Your task to perform on an android device: Go to Yahoo.com Image 0: 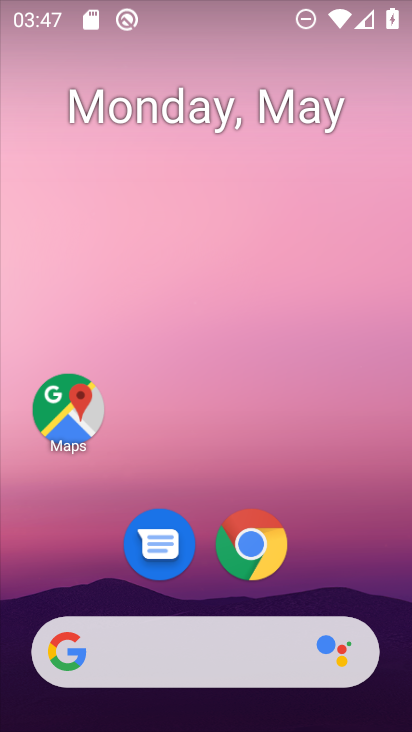
Step 0: drag from (372, 580) to (383, 235)
Your task to perform on an android device: Go to Yahoo.com Image 1: 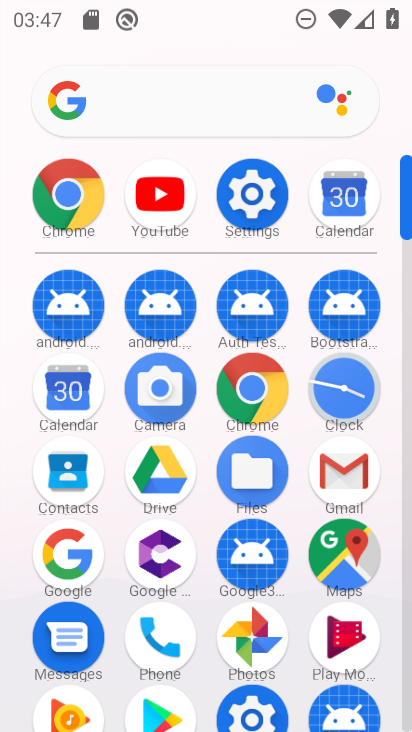
Step 1: click (261, 403)
Your task to perform on an android device: Go to Yahoo.com Image 2: 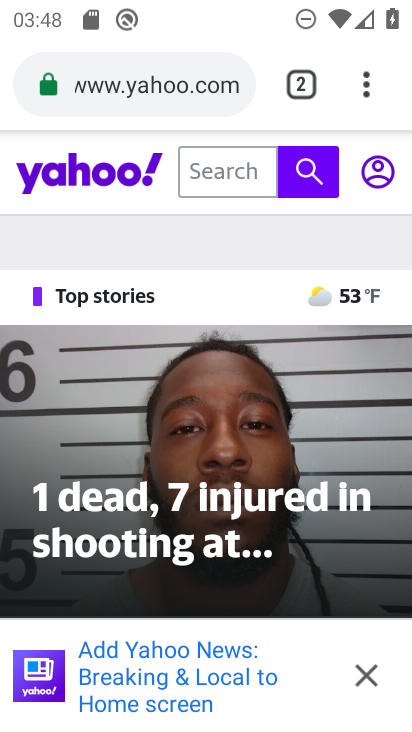
Step 2: task complete